Your task to perform on an android device: Open notification settings Image 0: 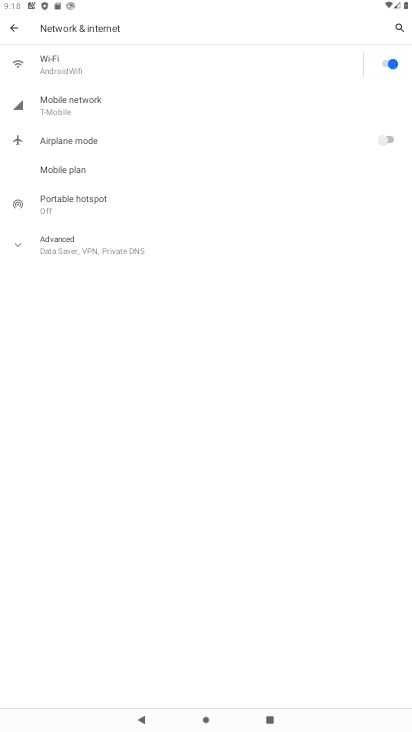
Step 0: press home button
Your task to perform on an android device: Open notification settings Image 1: 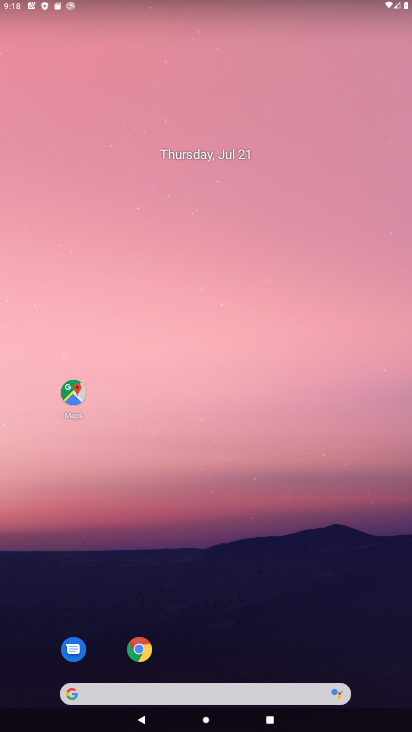
Step 1: drag from (197, 651) to (209, 244)
Your task to perform on an android device: Open notification settings Image 2: 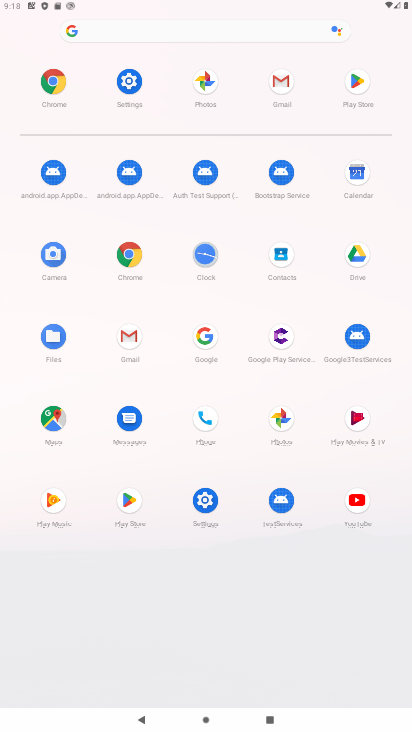
Step 2: click (130, 99)
Your task to perform on an android device: Open notification settings Image 3: 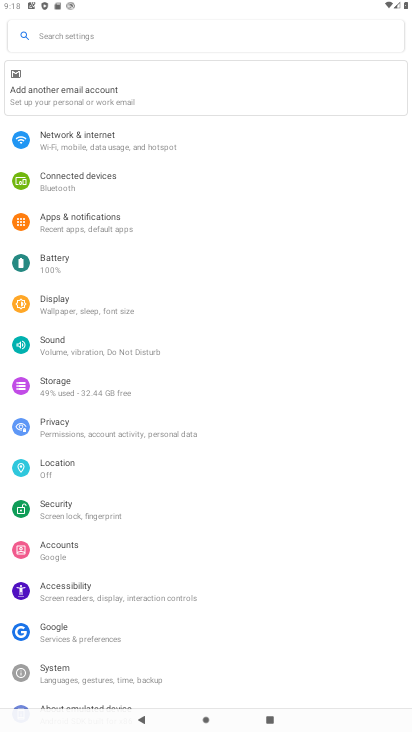
Step 3: click (113, 224)
Your task to perform on an android device: Open notification settings Image 4: 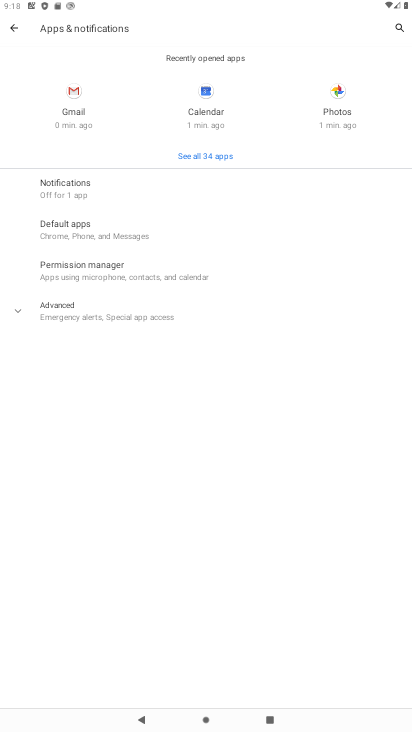
Step 4: click (79, 190)
Your task to perform on an android device: Open notification settings Image 5: 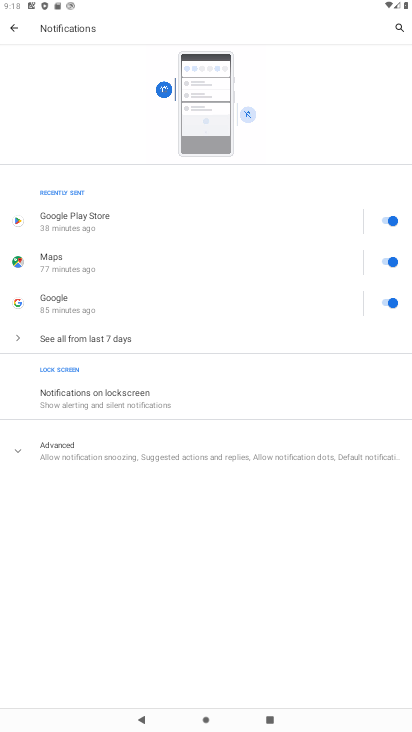
Step 5: click (78, 449)
Your task to perform on an android device: Open notification settings Image 6: 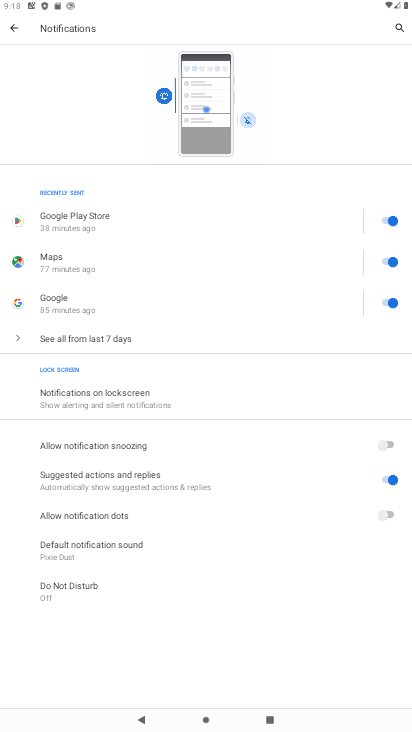
Step 6: task complete